Your task to perform on an android device: Go to CNN.com Image 0: 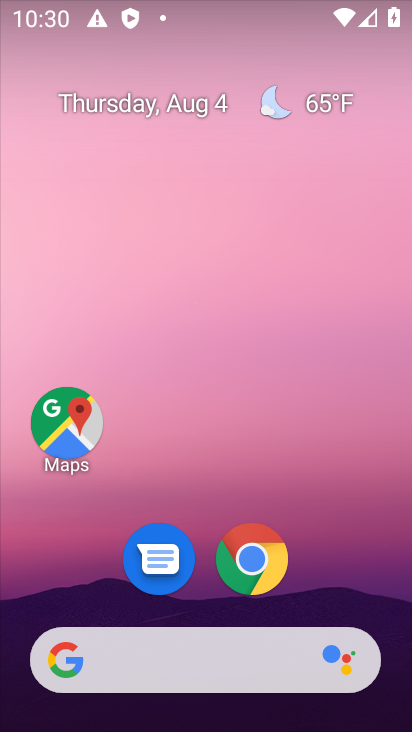
Step 0: click (256, 593)
Your task to perform on an android device: Go to CNN.com Image 1: 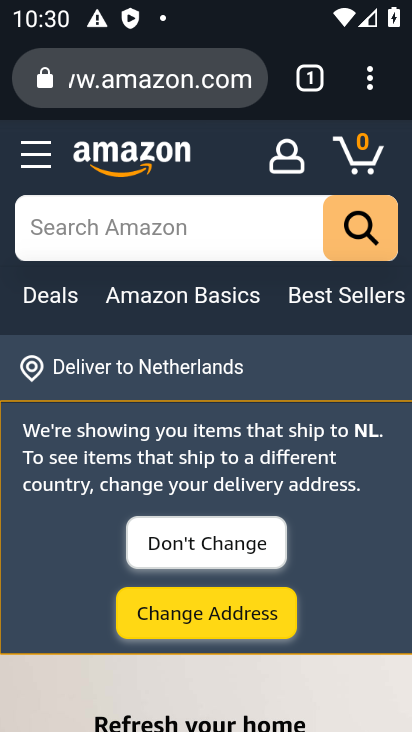
Step 1: click (142, 87)
Your task to perform on an android device: Go to CNN.com Image 2: 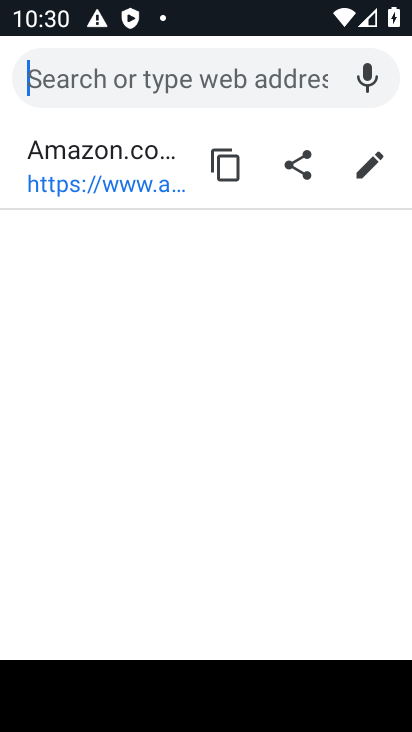
Step 2: type "cnn.com"
Your task to perform on an android device: Go to CNN.com Image 3: 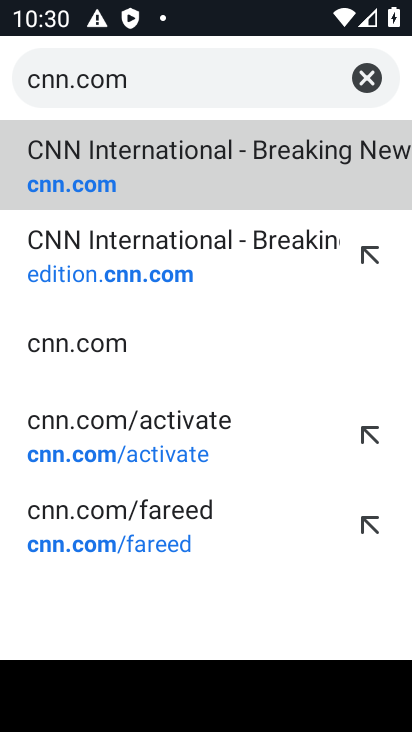
Step 3: click (174, 189)
Your task to perform on an android device: Go to CNN.com Image 4: 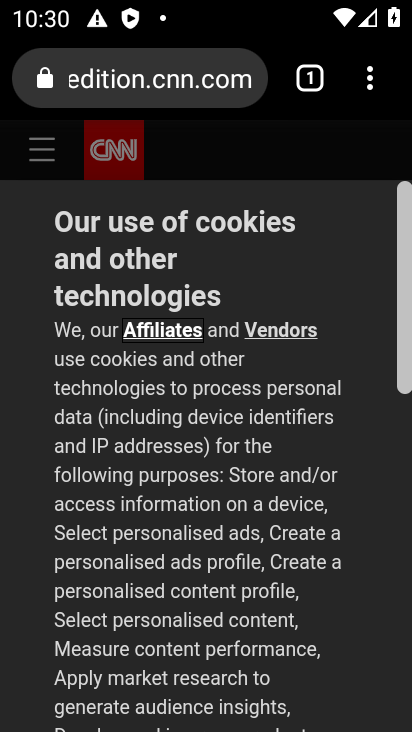
Step 4: task complete